Your task to perform on an android device: delete the emails in spam in the gmail app Image 0: 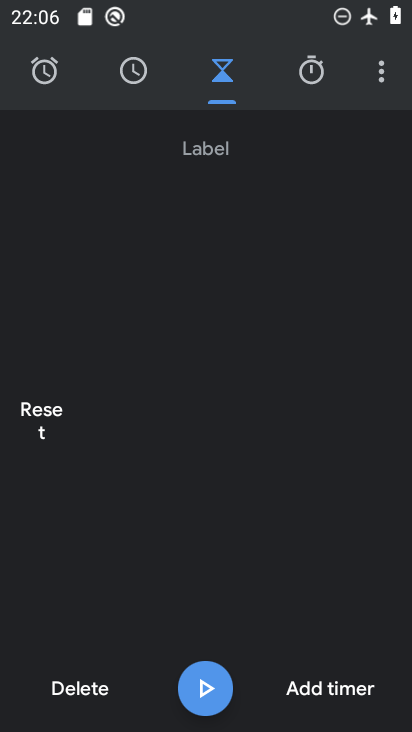
Step 0: press home button
Your task to perform on an android device: delete the emails in spam in the gmail app Image 1: 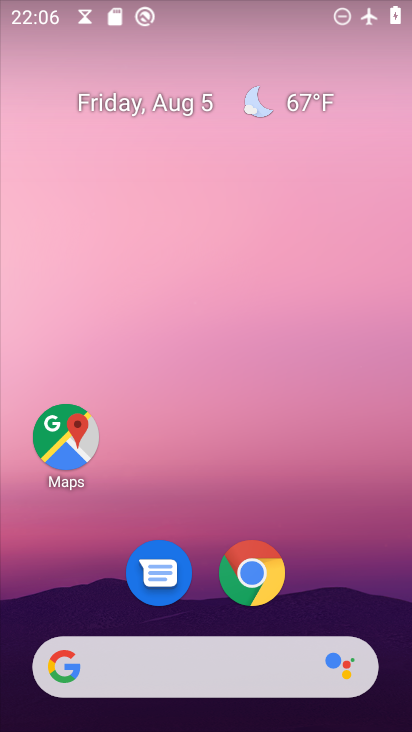
Step 1: drag from (202, 688) to (224, 144)
Your task to perform on an android device: delete the emails in spam in the gmail app Image 2: 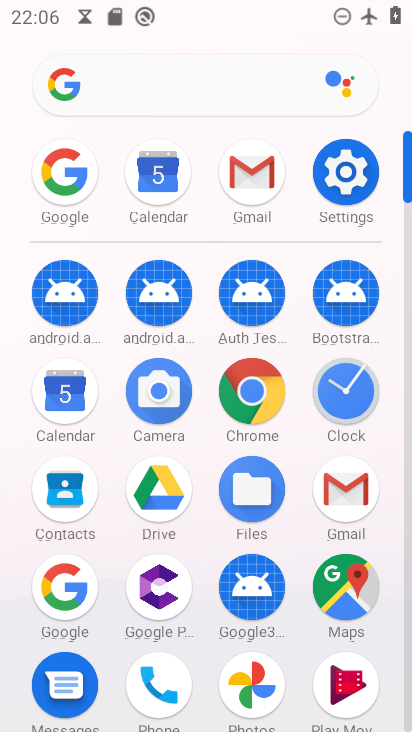
Step 2: click (252, 169)
Your task to perform on an android device: delete the emails in spam in the gmail app Image 3: 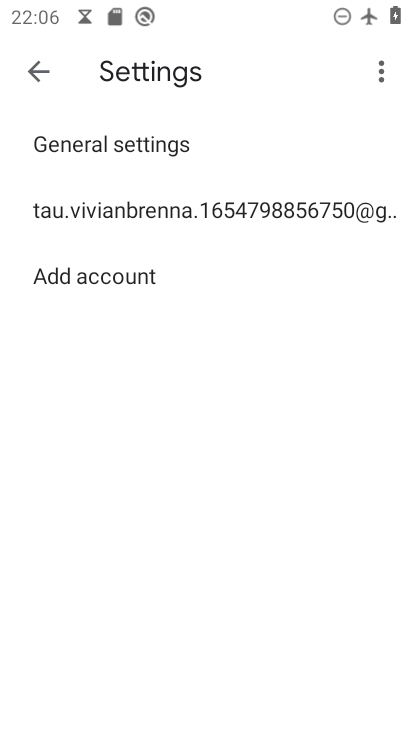
Step 3: press back button
Your task to perform on an android device: delete the emails in spam in the gmail app Image 4: 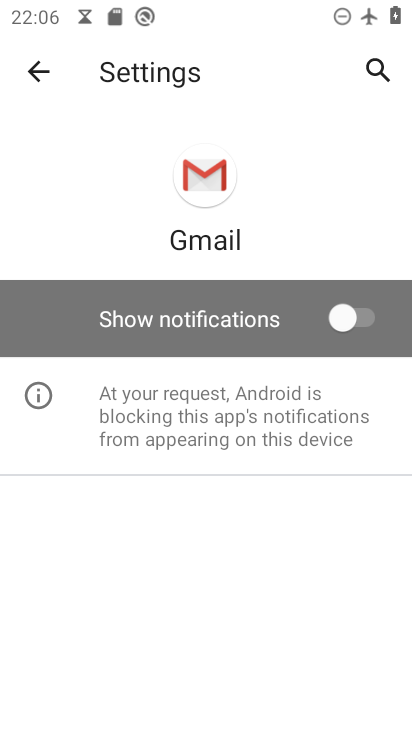
Step 4: press back button
Your task to perform on an android device: delete the emails in spam in the gmail app Image 5: 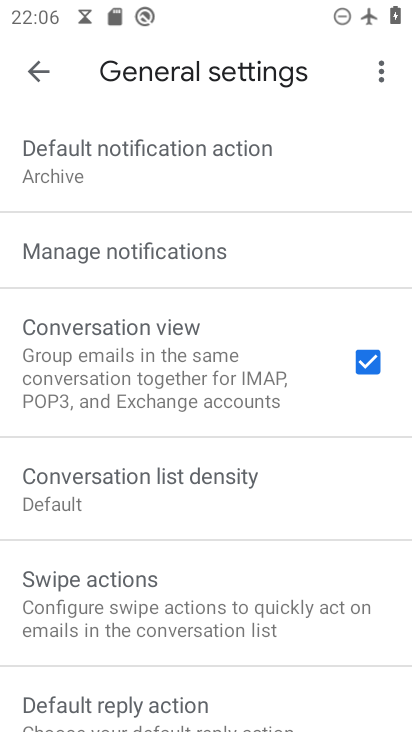
Step 5: press back button
Your task to perform on an android device: delete the emails in spam in the gmail app Image 6: 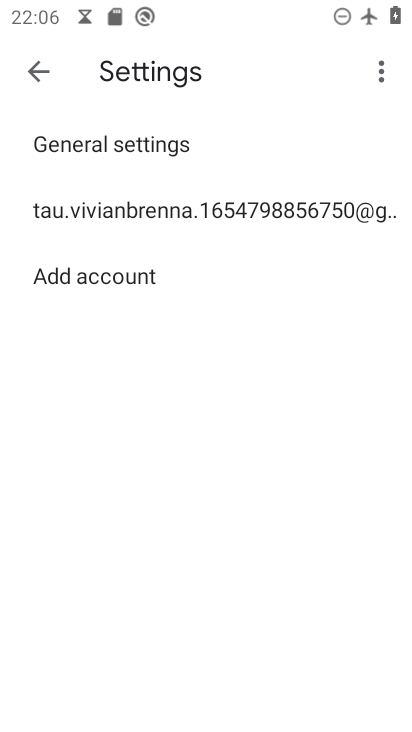
Step 6: press back button
Your task to perform on an android device: delete the emails in spam in the gmail app Image 7: 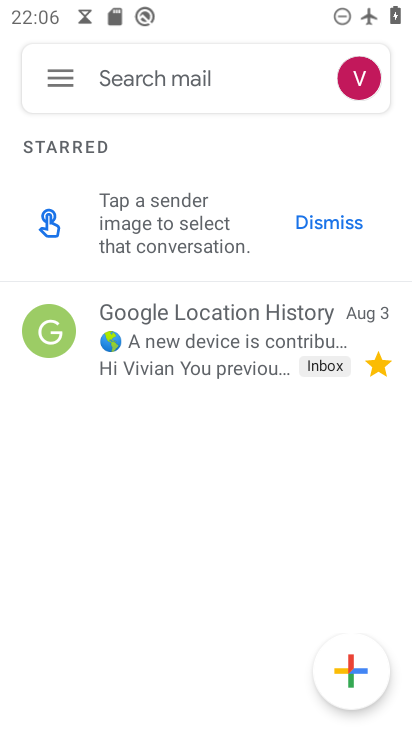
Step 7: click (57, 84)
Your task to perform on an android device: delete the emails in spam in the gmail app Image 8: 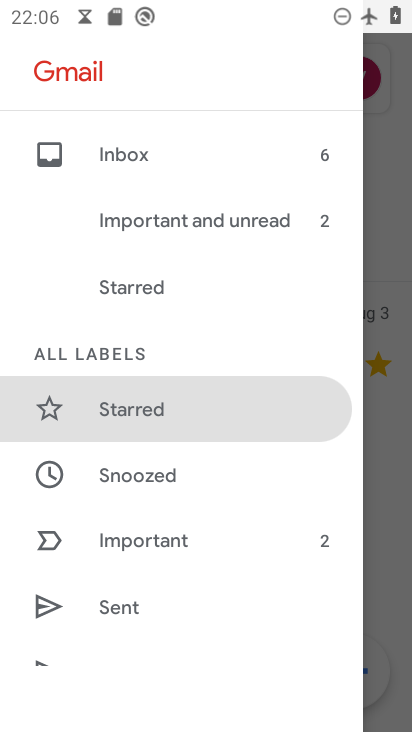
Step 8: drag from (148, 582) to (192, 292)
Your task to perform on an android device: delete the emails in spam in the gmail app Image 9: 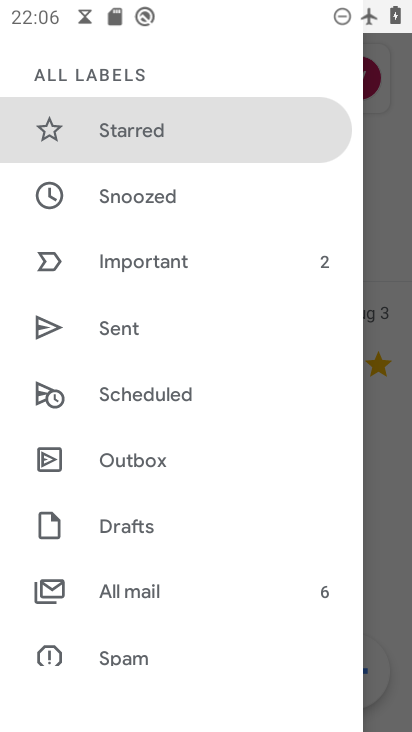
Step 9: drag from (143, 612) to (204, 484)
Your task to perform on an android device: delete the emails in spam in the gmail app Image 10: 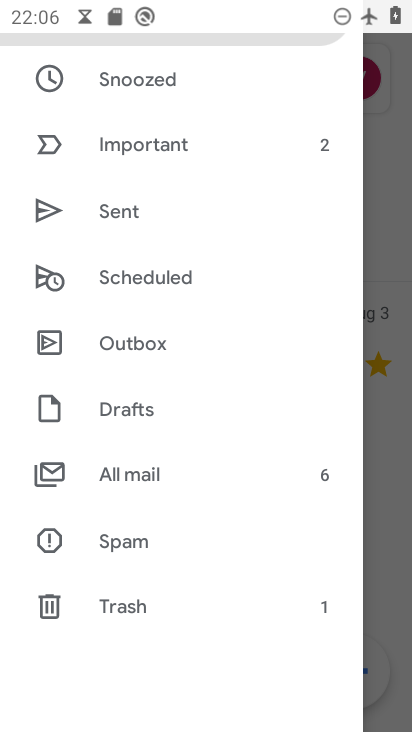
Step 10: click (151, 548)
Your task to perform on an android device: delete the emails in spam in the gmail app Image 11: 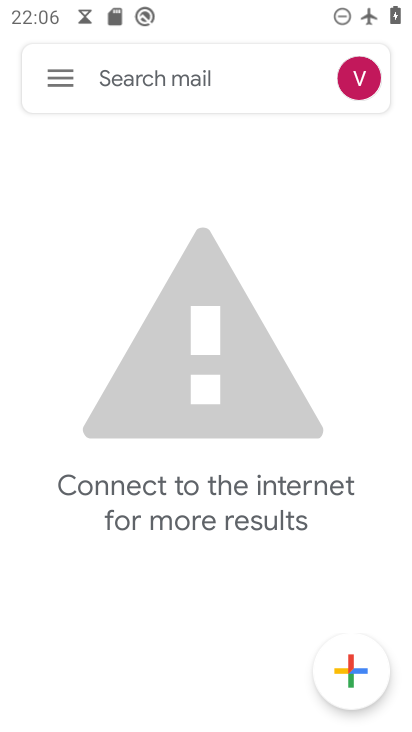
Step 11: task complete